Your task to perform on an android device: change your default location settings in chrome Image 0: 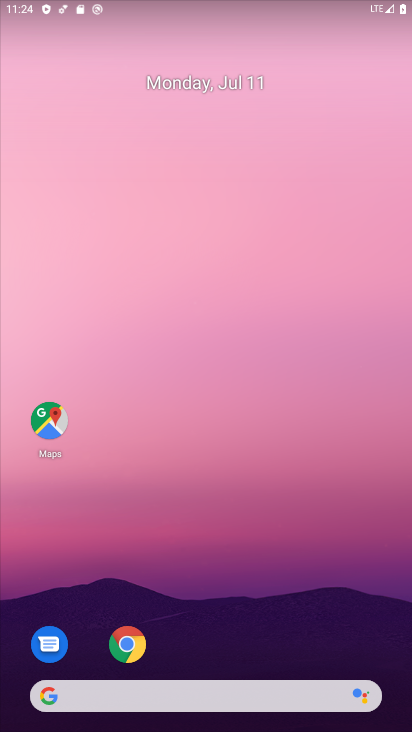
Step 0: click (111, 641)
Your task to perform on an android device: change your default location settings in chrome Image 1: 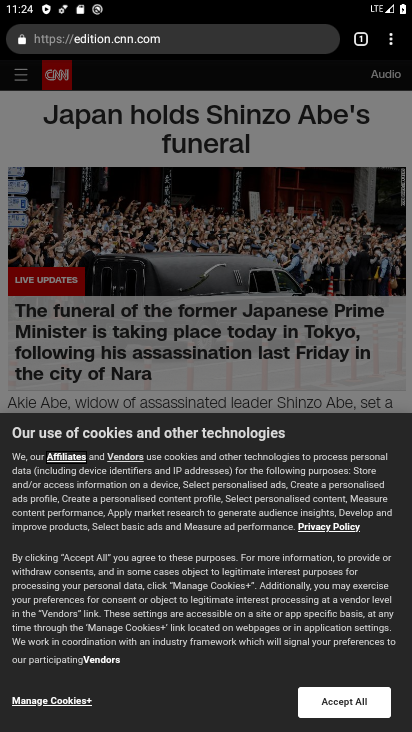
Step 1: click (389, 40)
Your task to perform on an android device: change your default location settings in chrome Image 2: 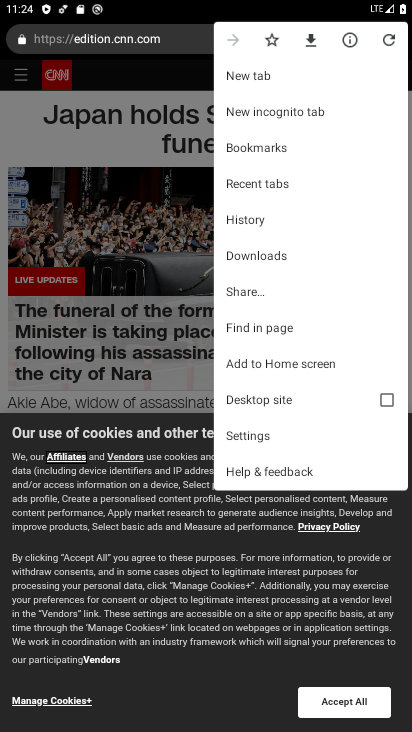
Step 2: click (249, 432)
Your task to perform on an android device: change your default location settings in chrome Image 3: 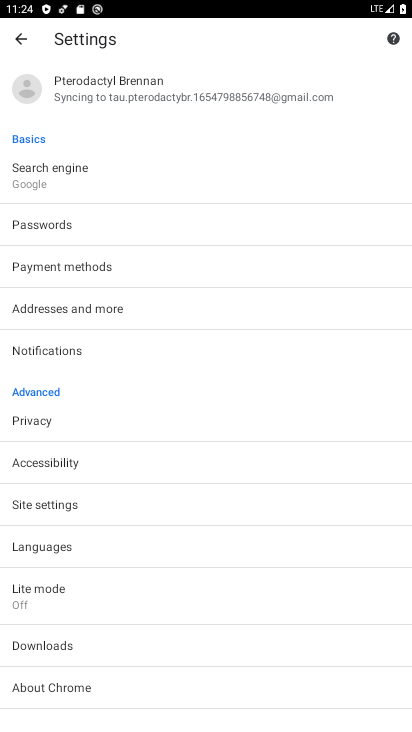
Step 3: click (54, 505)
Your task to perform on an android device: change your default location settings in chrome Image 4: 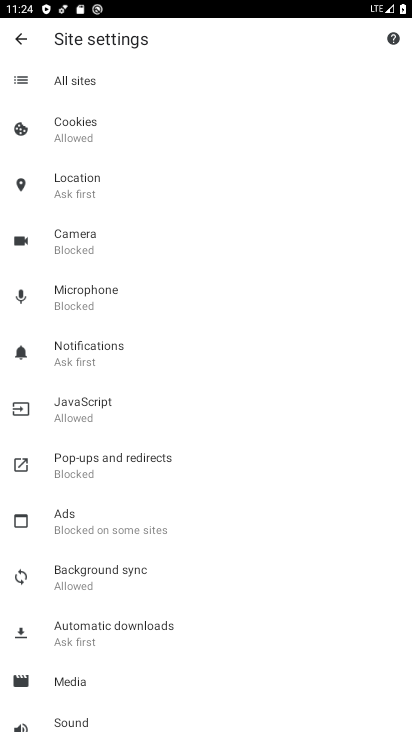
Step 4: click (96, 181)
Your task to perform on an android device: change your default location settings in chrome Image 5: 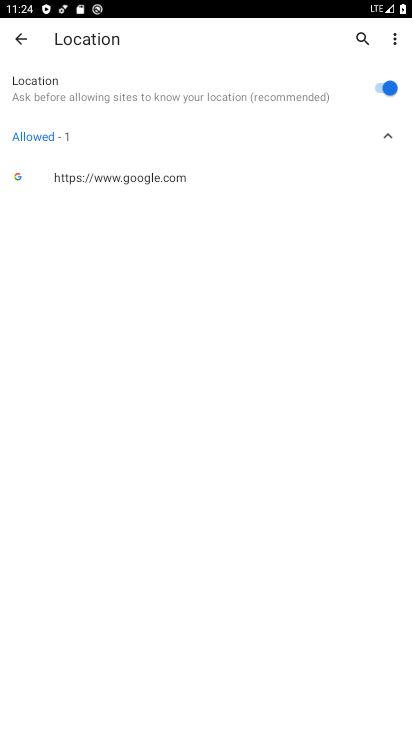
Step 5: click (374, 95)
Your task to perform on an android device: change your default location settings in chrome Image 6: 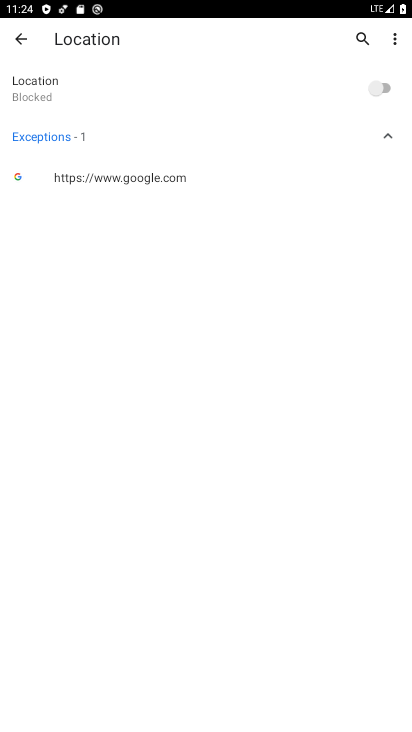
Step 6: task complete